Your task to perform on an android device: show emergency info Image 0: 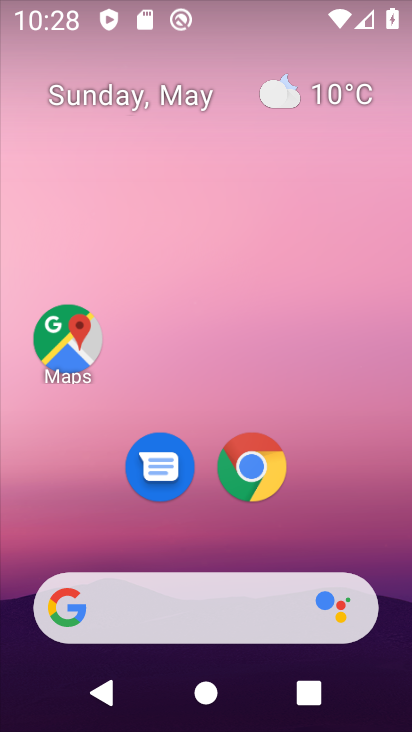
Step 0: drag from (273, 482) to (193, 101)
Your task to perform on an android device: show emergency info Image 1: 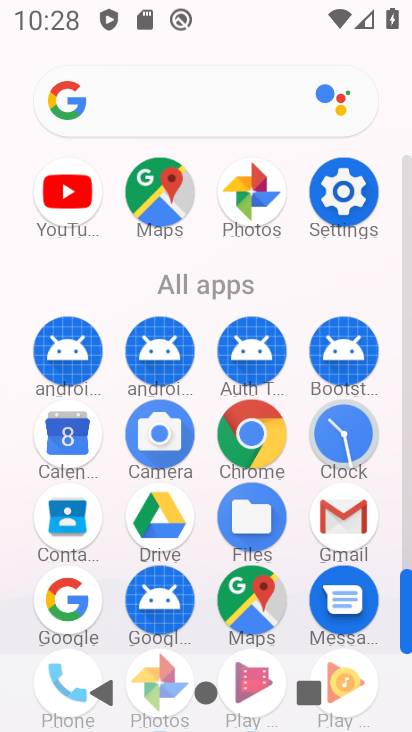
Step 1: click (360, 191)
Your task to perform on an android device: show emergency info Image 2: 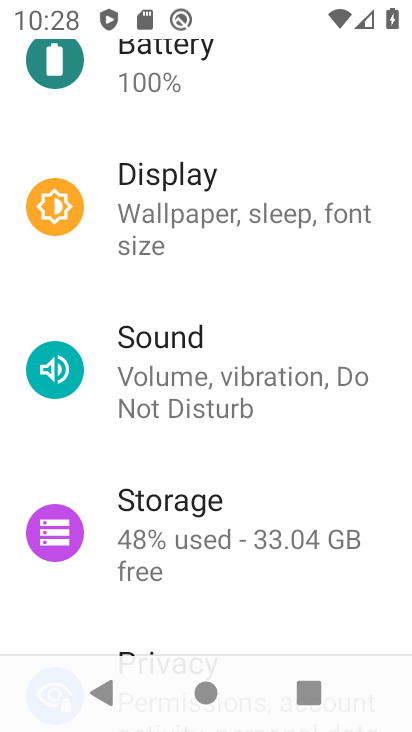
Step 2: drag from (253, 440) to (201, 90)
Your task to perform on an android device: show emergency info Image 3: 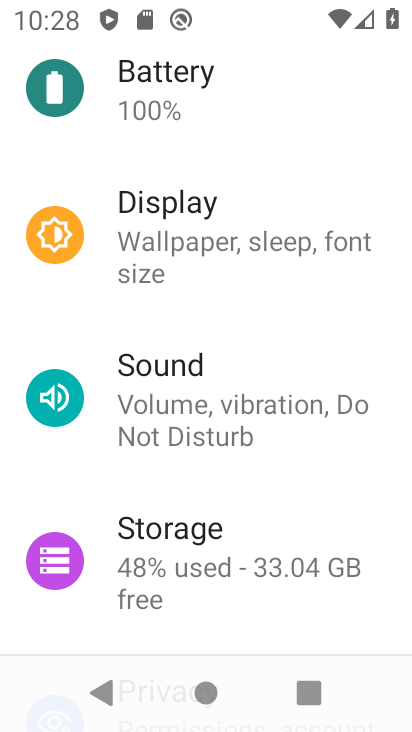
Step 3: drag from (280, 527) to (282, 94)
Your task to perform on an android device: show emergency info Image 4: 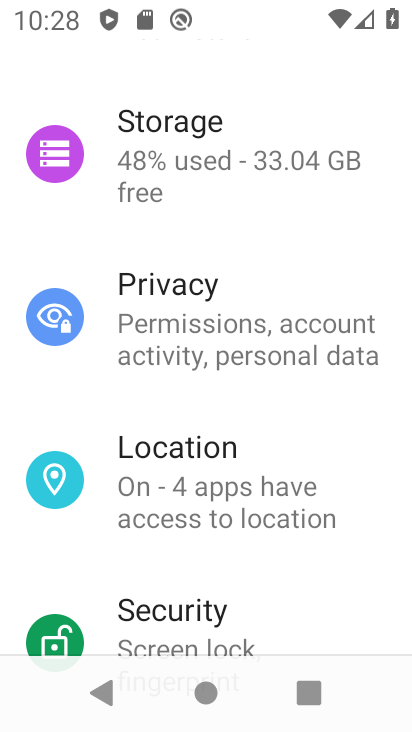
Step 4: drag from (281, 634) to (273, 114)
Your task to perform on an android device: show emergency info Image 5: 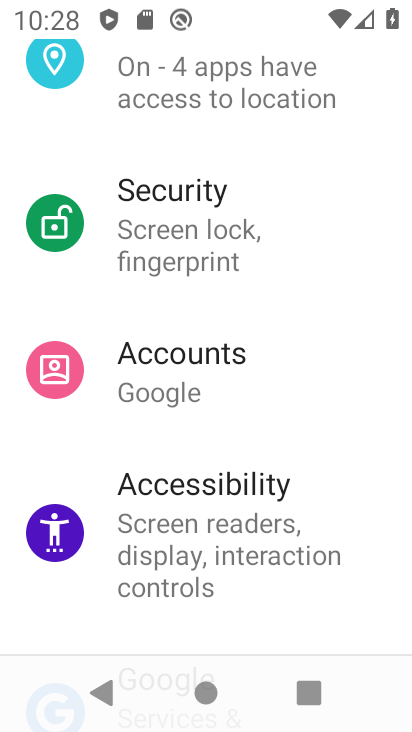
Step 5: drag from (281, 580) to (295, 99)
Your task to perform on an android device: show emergency info Image 6: 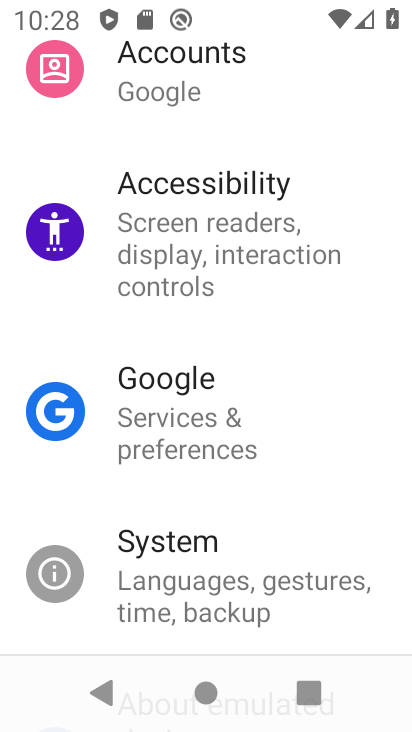
Step 6: drag from (325, 564) to (311, 126)
Your task to perform on an android device: show emergency info Image 7: 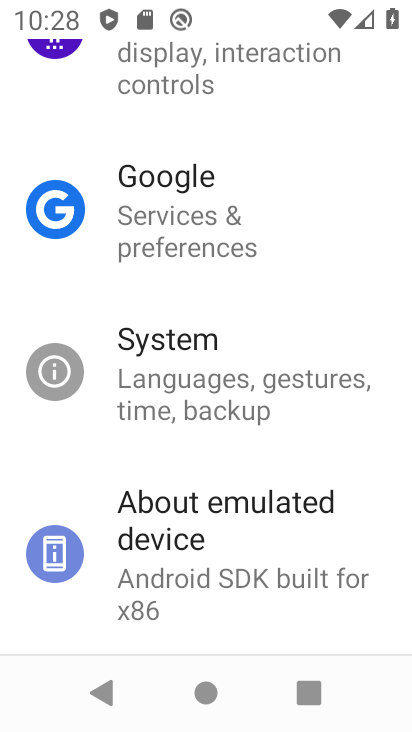
Step 7: drag from (264, 565) to (246, 175)
Your task to perform on an android device: show emergency info Image 8: 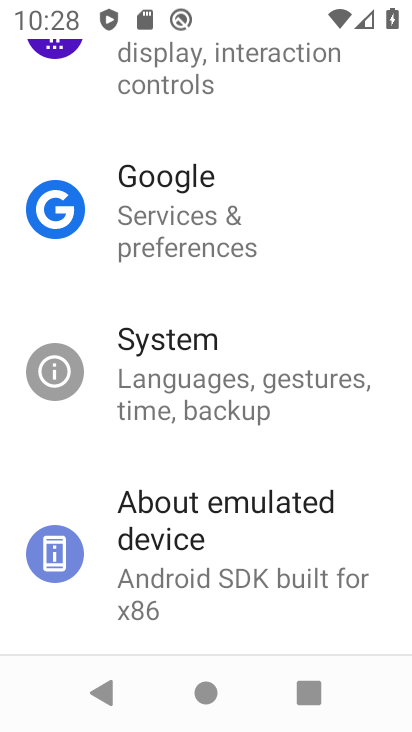
Step 8: click (236, 488)
Your task to perform on an android device: show emergency info Image 9: 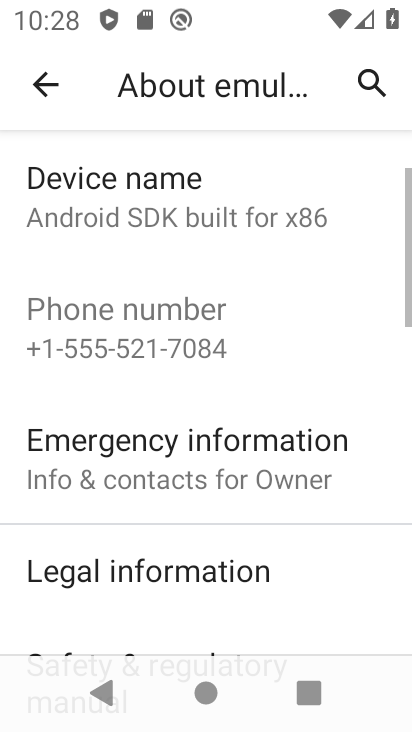
Step 9: click (236, 488)
Your task to perform on an android device: show emergency info Image 10: 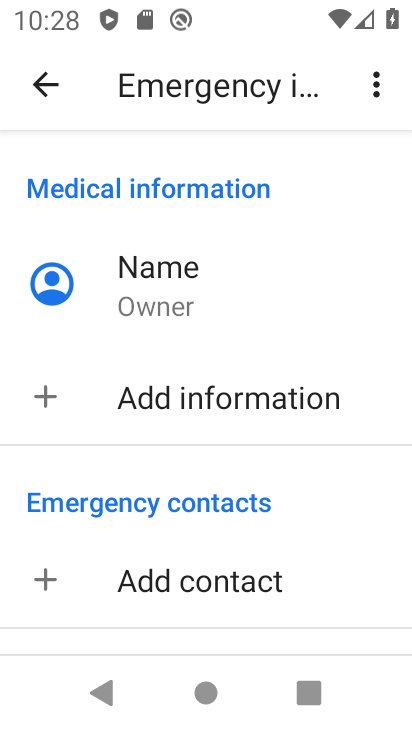
Step 10: task complete